Your task to perform on an android device: Go to eBay Image 0: 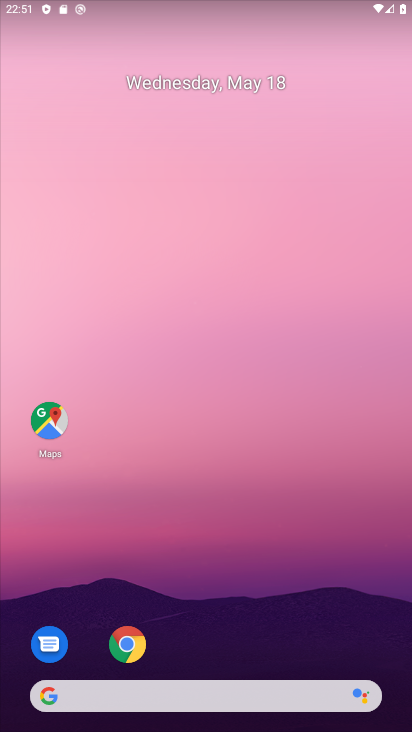
Step 0: drag from (252, 624) to (291, 217)
Your task to perform on an android device: Go to eBay Image 1: 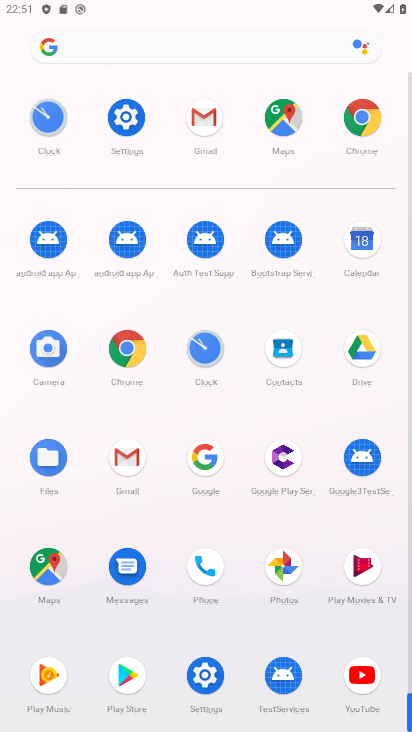
Step 1: click (137, 357)
Your task to perform on an android device: Go to eBay Image 2: 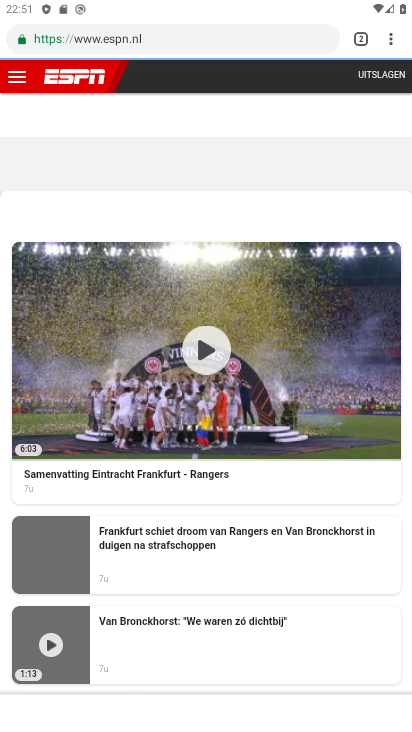
Step 2: click (204, 41)
Your task to perform on an android device: Go to eBay Image 3: 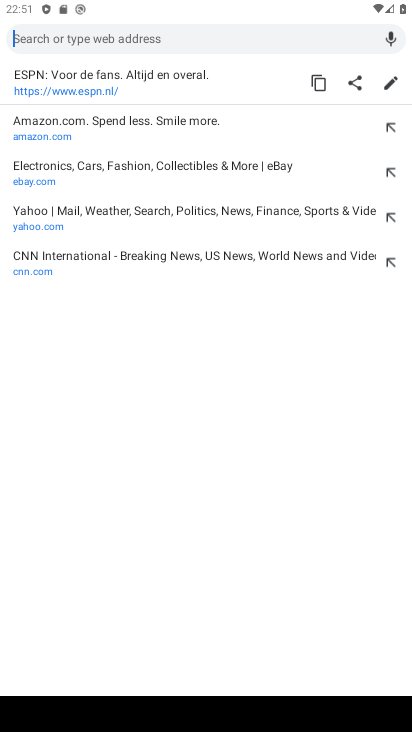
Step 3: type "ebay"
Your task to perform on an android device: Go to eBay Image 4: 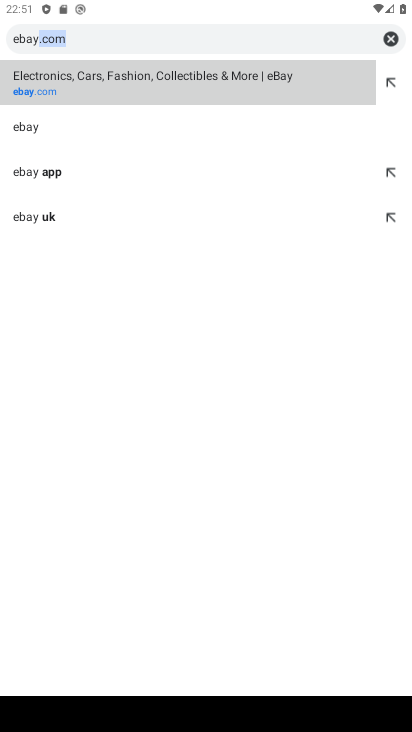
Step 4: click (34, 90)
Your task to perform on an android device: Go to eBay Image 5: 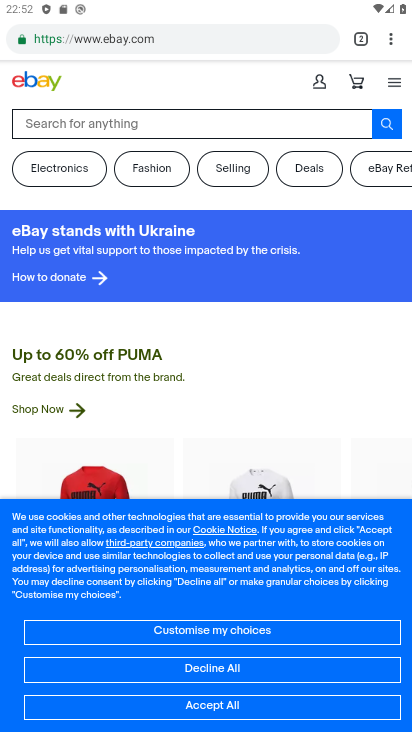
Step 5: task complete